Your task to perform on an android device: set an alarm Image 0: 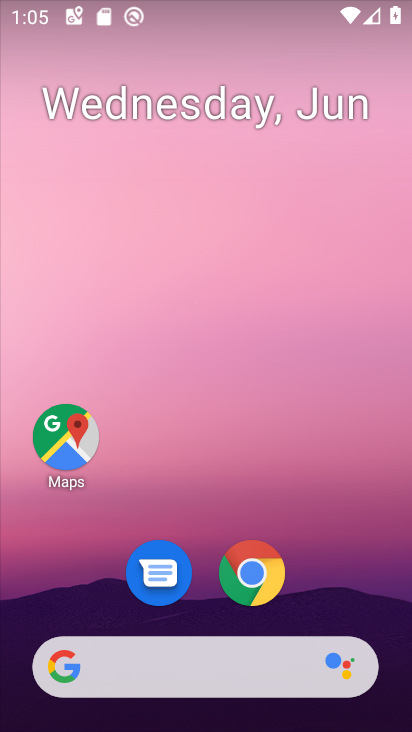
Step 0: drag from (206, 576) to (291, 16)
Your task to perform on an android device: set an alarm Image 1: 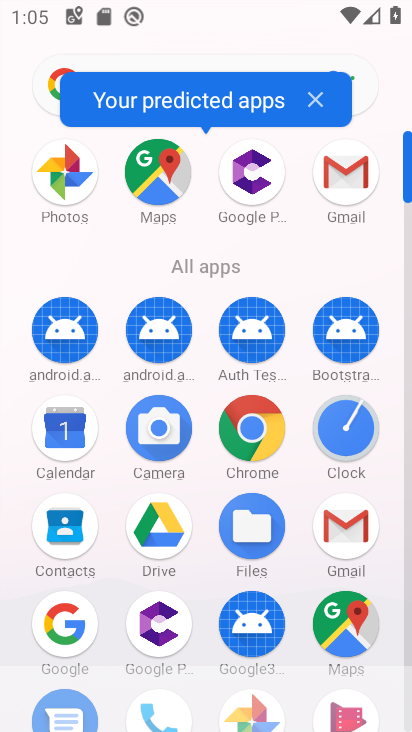
Step 1: click (346, 428)
Your task to perform on an android device: set an alarm Image 2: 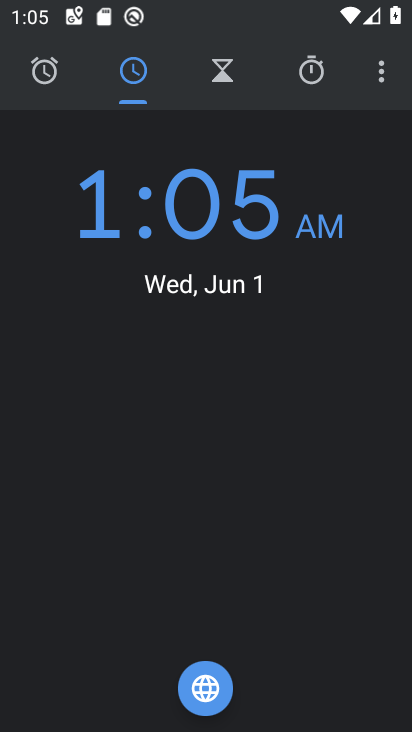
Step 2: click (63, 71)
Your task to perform on an android device: set an alarm Image 3: 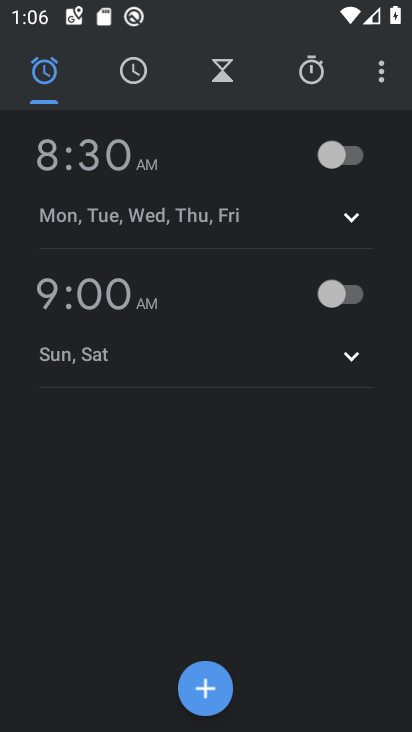
Step 3: click (334, 158)
Your task to perform on an android device: set an alarm Image 4: 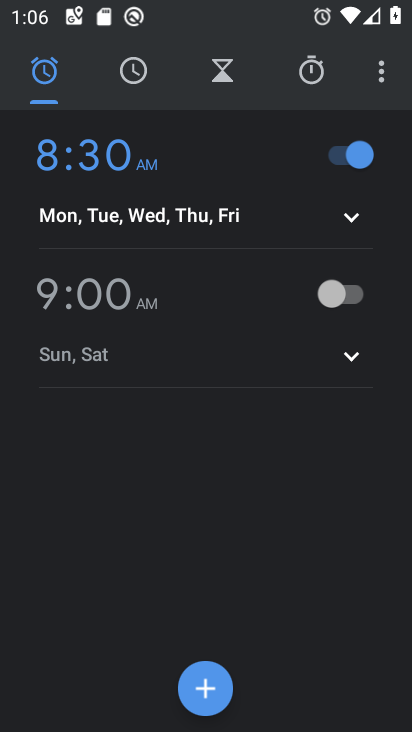
Step 4: task complete